Your task to perform on an android device: turn off sleep mode Image 0: 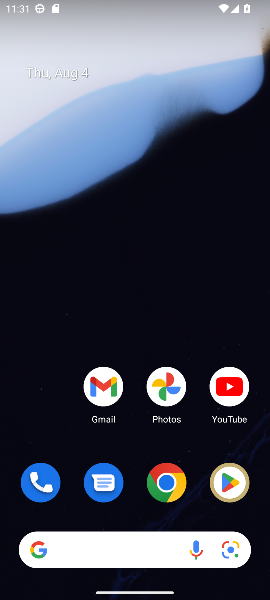
Step 0: drag from (144, 435) to (145, 122)
Your task to perform on an android device: turn off sleep mode Image 1: 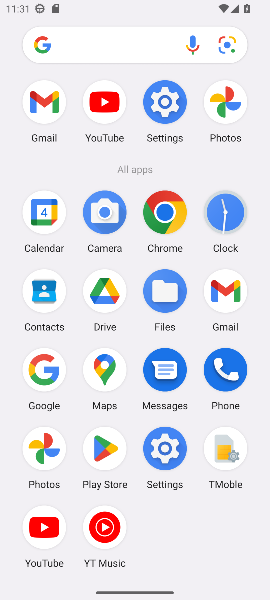
Step 1: click (165, 116)
Your task to perform on an android device: turn off sleep mode Image 2: 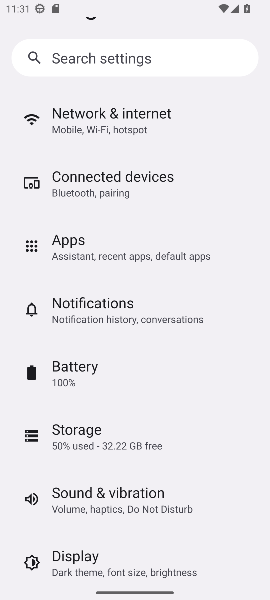
Step 2: drag from (120, 234) to (125, 439)
Your task to perform on an android device: turn off sleep mode Image 3: 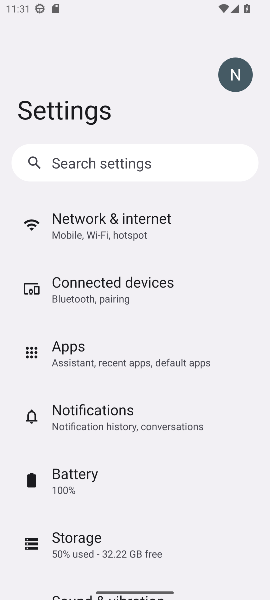
Step 3: drag from (125, 439) to (137, 240)
Your task to perform on an android device: turn off sleep mode Image 4: 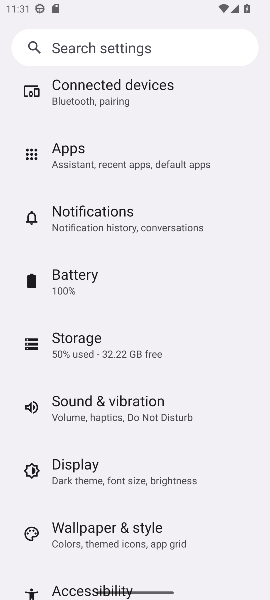
Step 4: click (106, 457)
Your task to perform on an android device: turn off sleep mode Image 5: 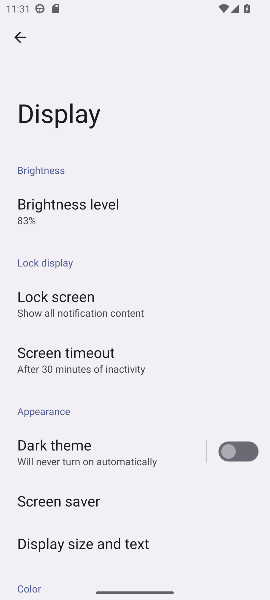
Step 5: click (132, 352)
Your task to perform on an android device: turn off sleep mode Image 6: 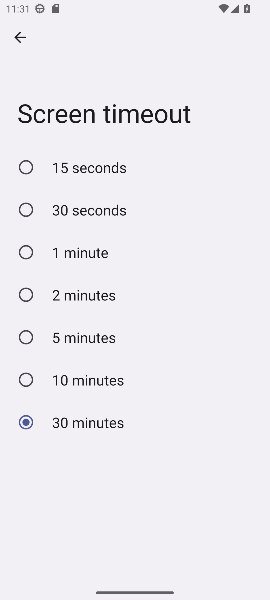
Step 6: click (60, 278)
Your task to perform on an android device: turn off sleep mode Image 7: 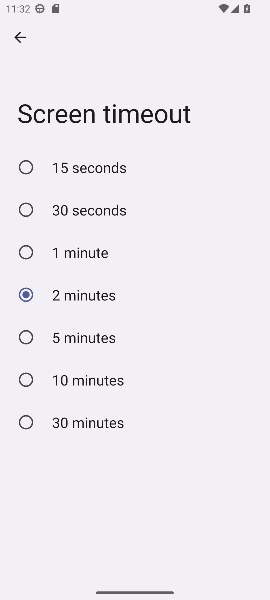
Step 7: task complete